Your task to perform on an android device: turn on translation in the chrome app Image 0: 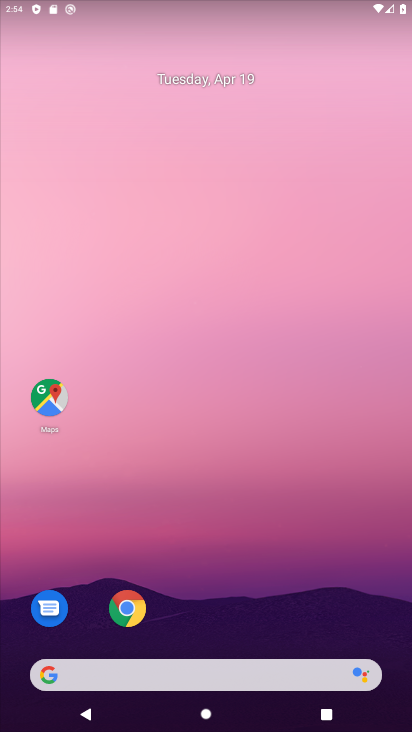
Step 0: drag from (260, 713) to (268, 147)
Your task to perform on an android device: turn on translation in the chrome app Image 1: 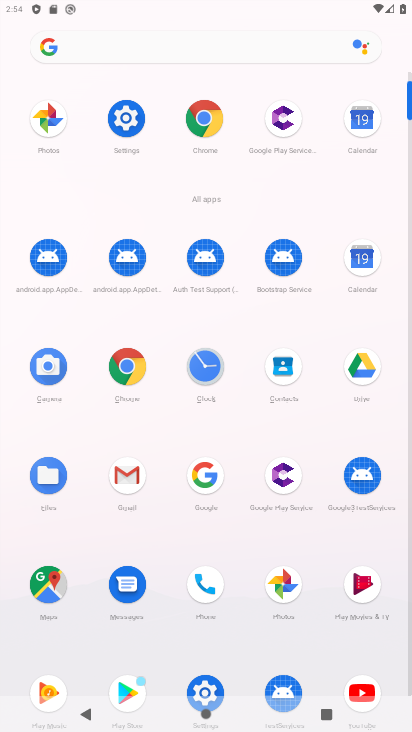
Step 1: click (134, 366)
Your task to perform on an android device: turn on translation in the chrome app Image 2: 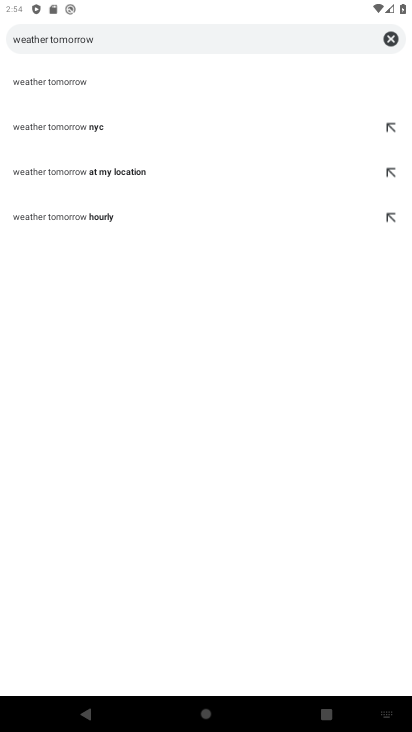
Step 2: click (395, 46)
Your task to perform on an android device: turn on translation in the chrome app Image 3: 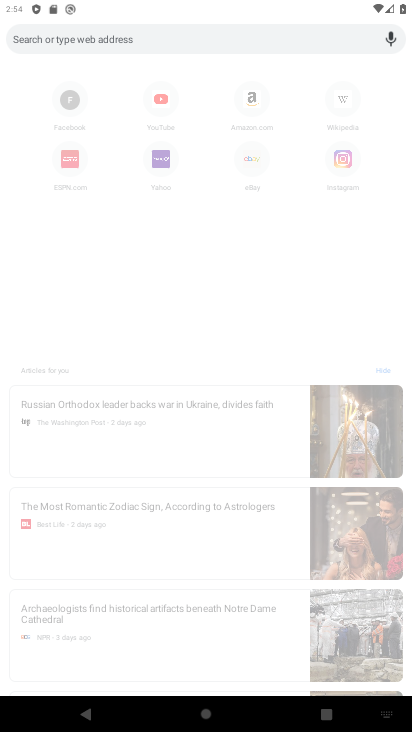
Step 3: click (263, 302)
Your task to perform on an android device: turn on translation in the chrome app Image 4: 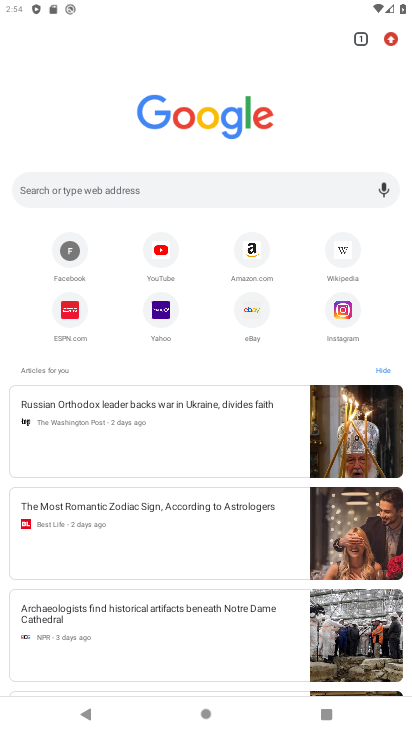
Step 4: drag from (197, 427) to (243, 279)
Your task to perform on an android device: turn on translation in the chrome app Image 5: 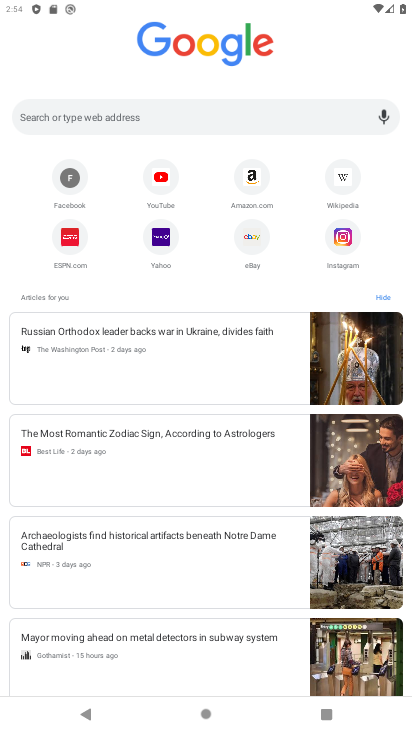
Step 5: drag from (289, 68) to (262, 401)
Your task to perform on an android device: turn on translation in the chrome app Image 6: 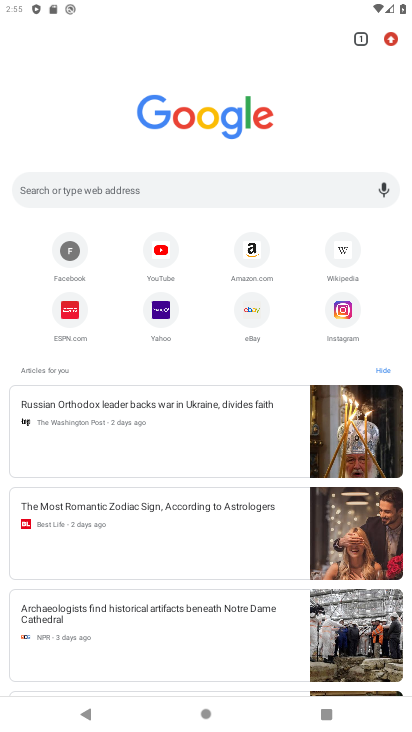
Step 6: drag from (342, 65) to (312, 239)
Your task to perform on an android device: turn on translation in the chrome app Image 7: 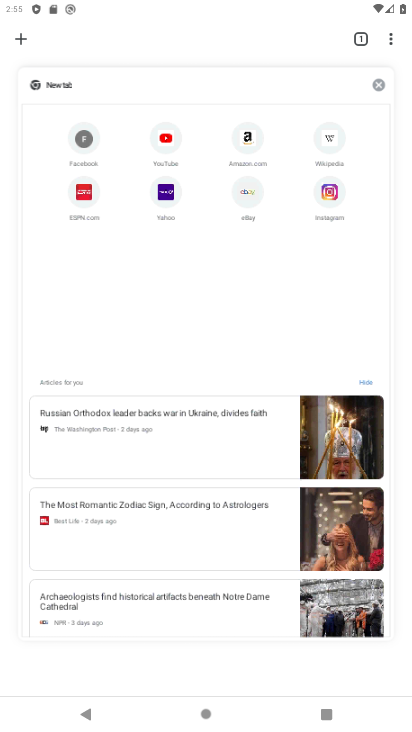
Step 7: click (392, 43)
Your task to perform on an android device: turn on translation in the chrome app Image 8: 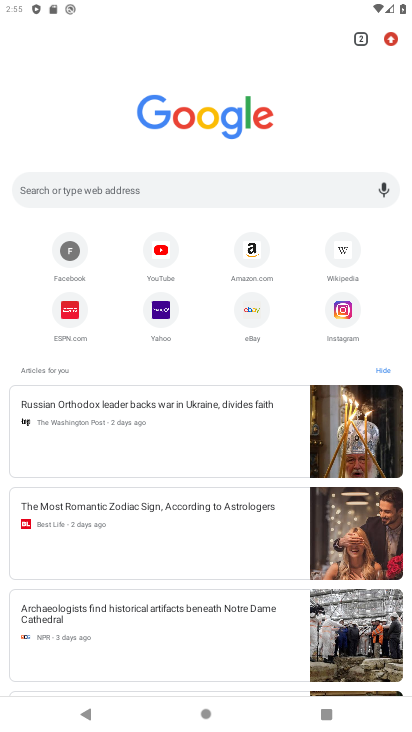
Step 8: drag from (364, 93) to (281, 311)
Your task to perform on an android device: turn on translation in the chrome app Image 9: 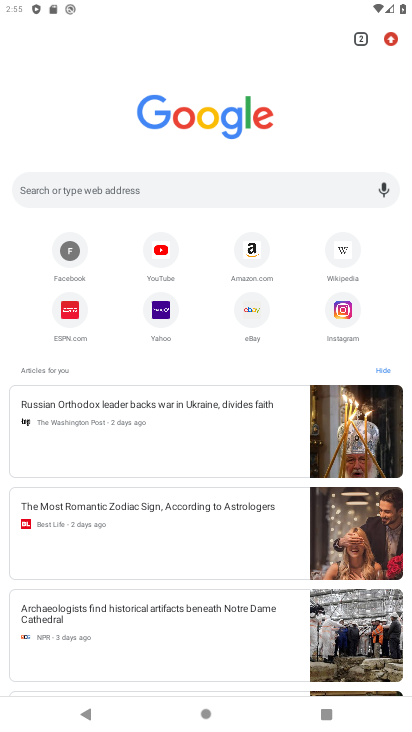
Step 9: drag from (333, 67) to (325, 262)
Your task to perform on an android device: turn on translation in the chrome app Image 10: 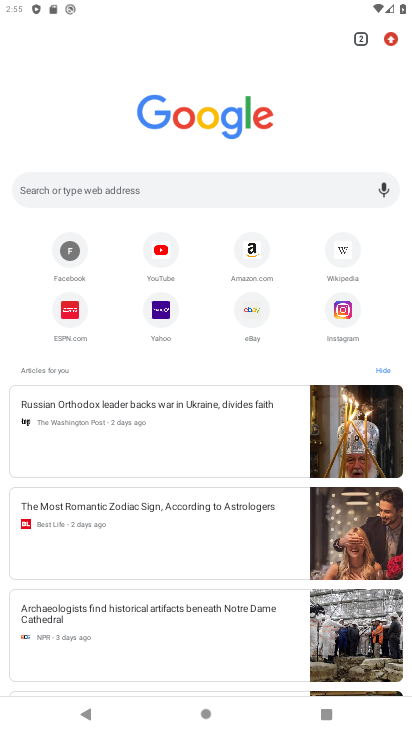
Step 10: drag from (316, 115) to (262, 290)
Your task to perform on an android device: turn on translation in the chrome app Image 11: 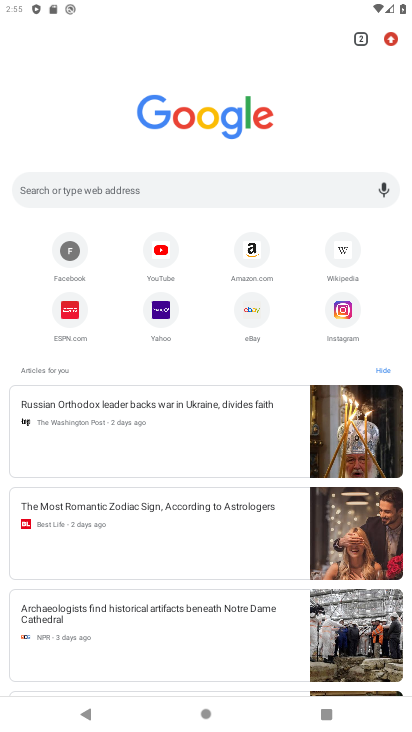
Step 11: drag from (323, 91) to (279, 253)
Your task to perform on an android device: turn on translation in the chrome app Image 12: 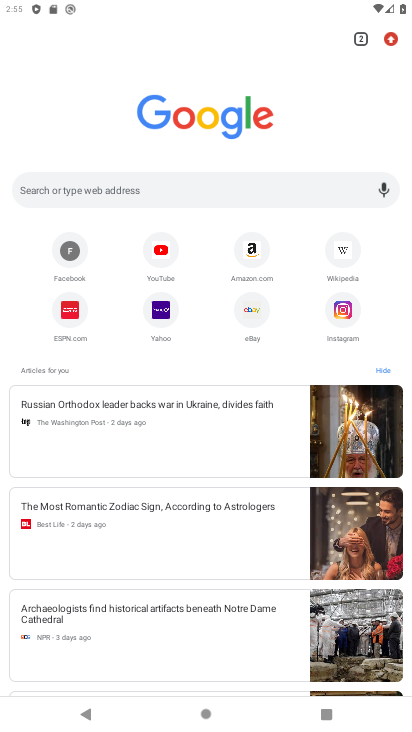
Step 12: click (391, 46)
Your task to perform on an android device: turn on translation in the chrome app Image 13: 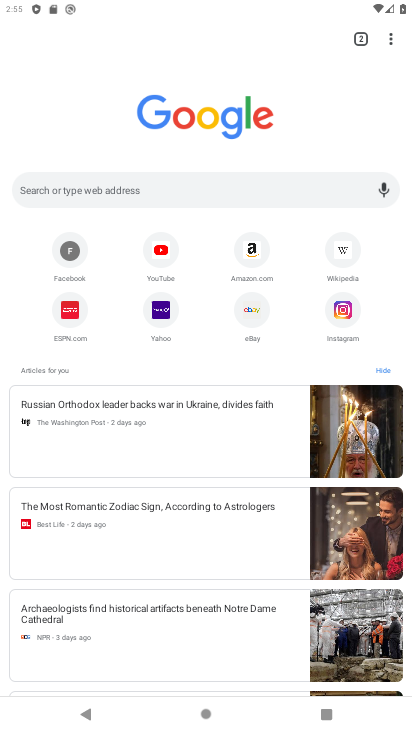
Step 13: drag from (390, 35) to (243, 373)
Your task to perform on an android device: turn on translation in the chrome app Image 14: 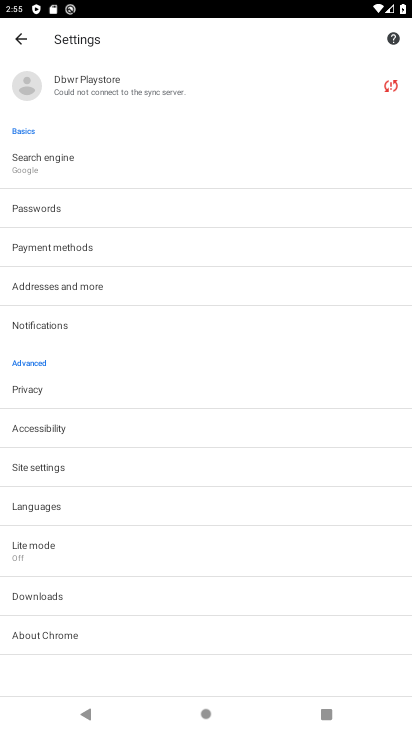
Step 14: click (55, 510)
Your task to perform on an android device: turn on translation in the chrome app Image 15: 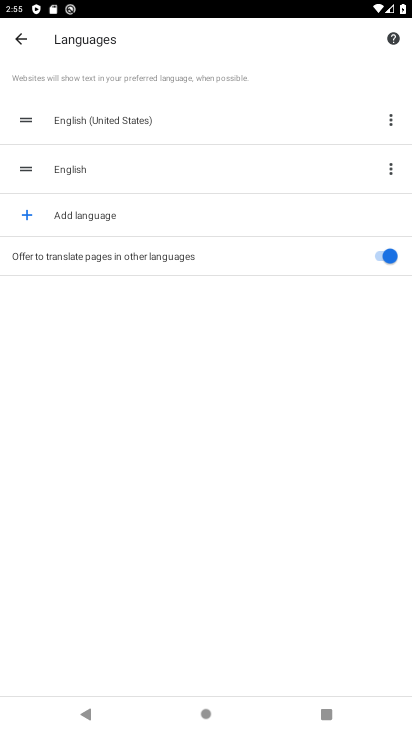
Step 15: task complete